Your task to perform on an android device: Search for Italian restaurants on Maps Image 0: 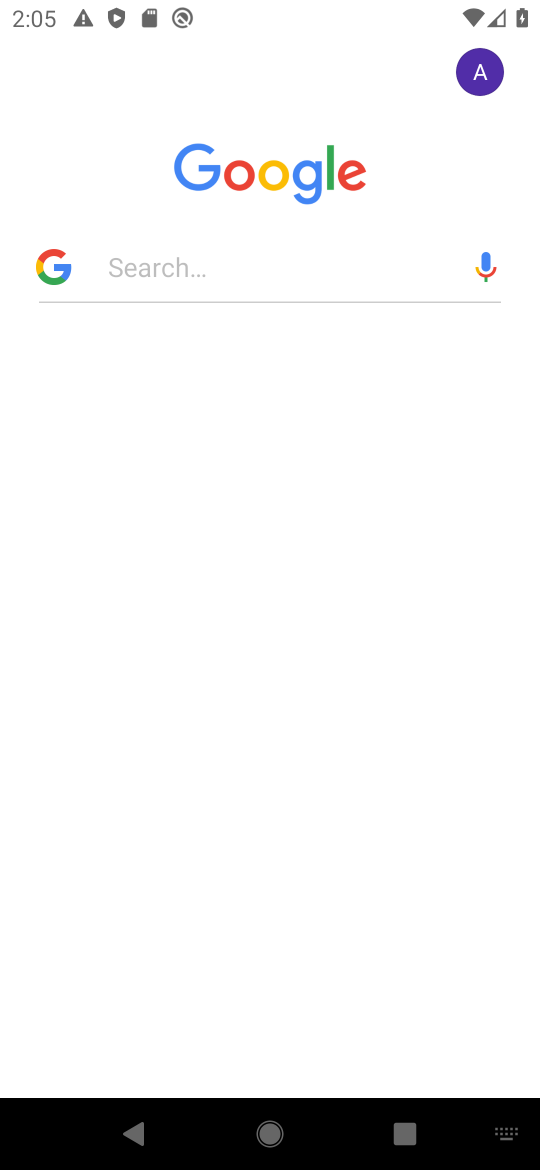
Step 0: press home button
Your task to perform on an android device: Search for Italian restaurants on Maps Image 1: 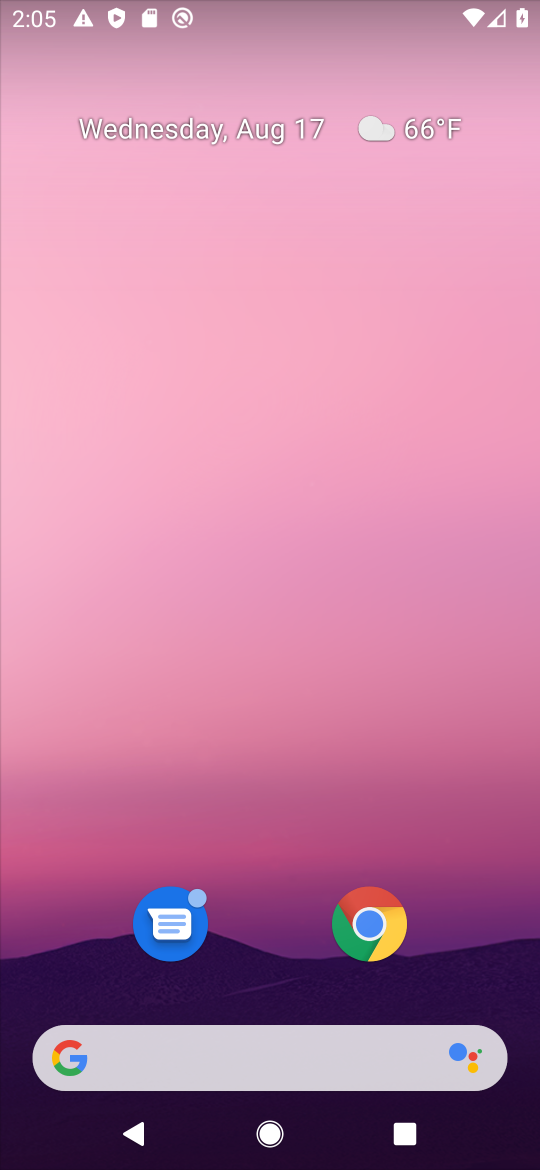
Step 1: drag from (212, 1039) to (343, 209)
Your task to perform on an android device: Search for Italian restaurants on Maps Image 2: 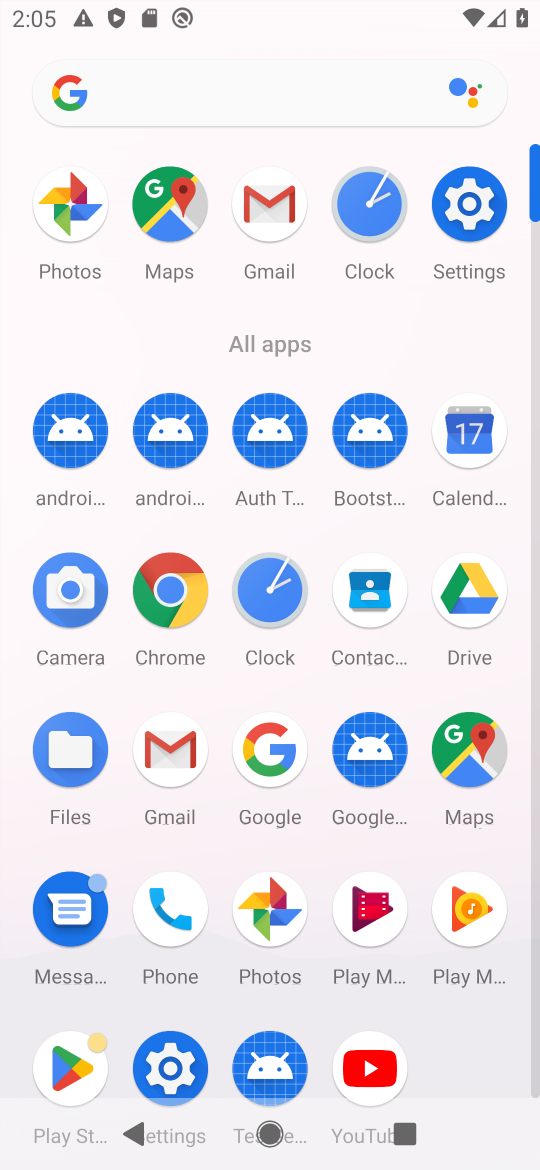
Step 2: click (171, 210)
Your task to perform on an android device: Search for Italian restaurants on Maps Image 3: 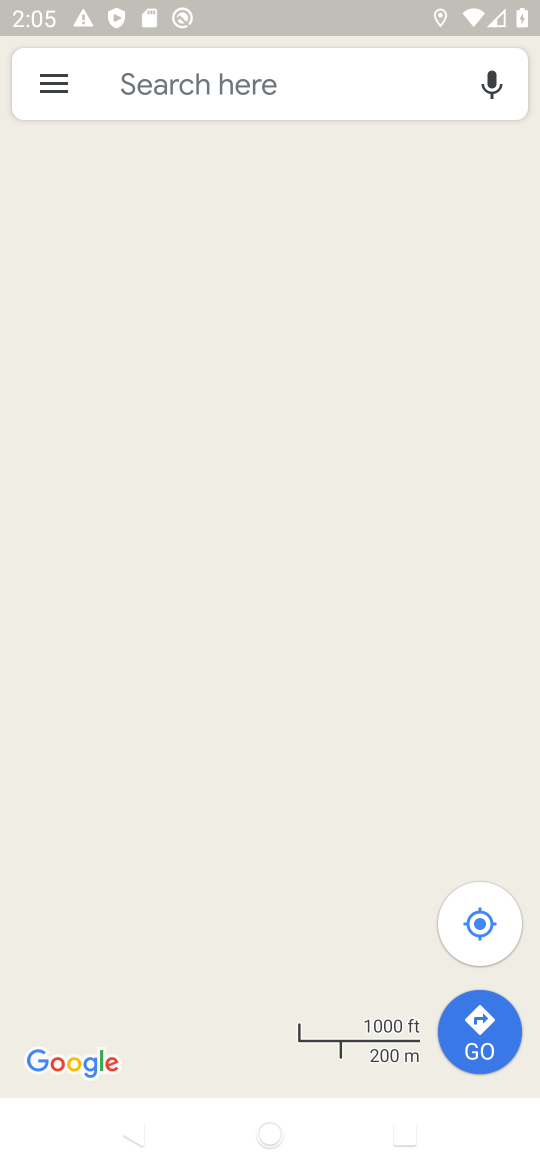
Step 3: click (250, 77)
Your task to perform on an android device: Search for Italian restaurants on Maps Image 4: 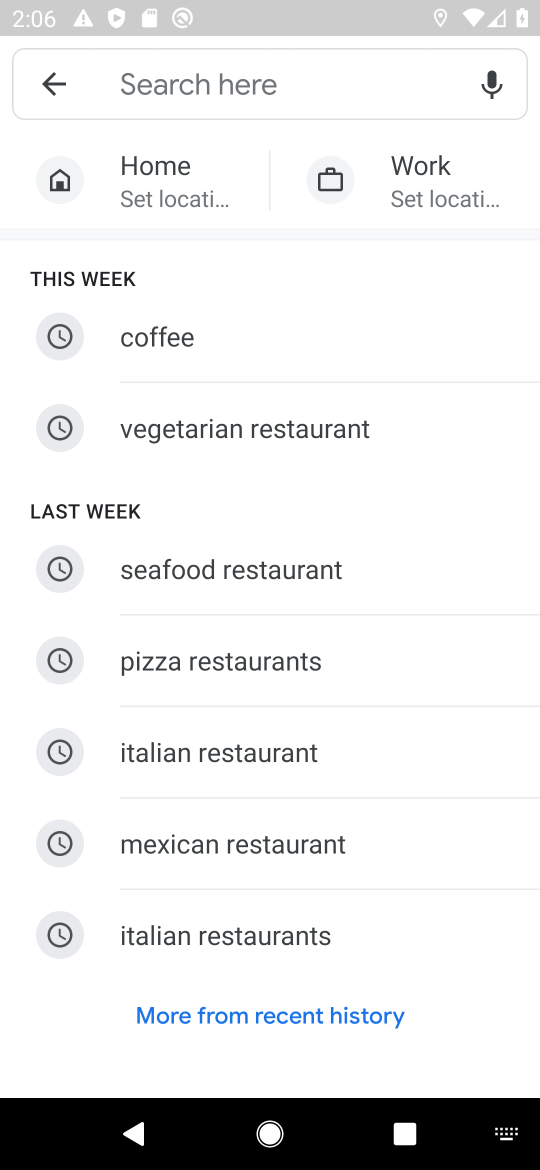
Step 4: type "Italian restaurants"
Your task to perform on an android device: Search for Italian restaurants on Maps Image 5: 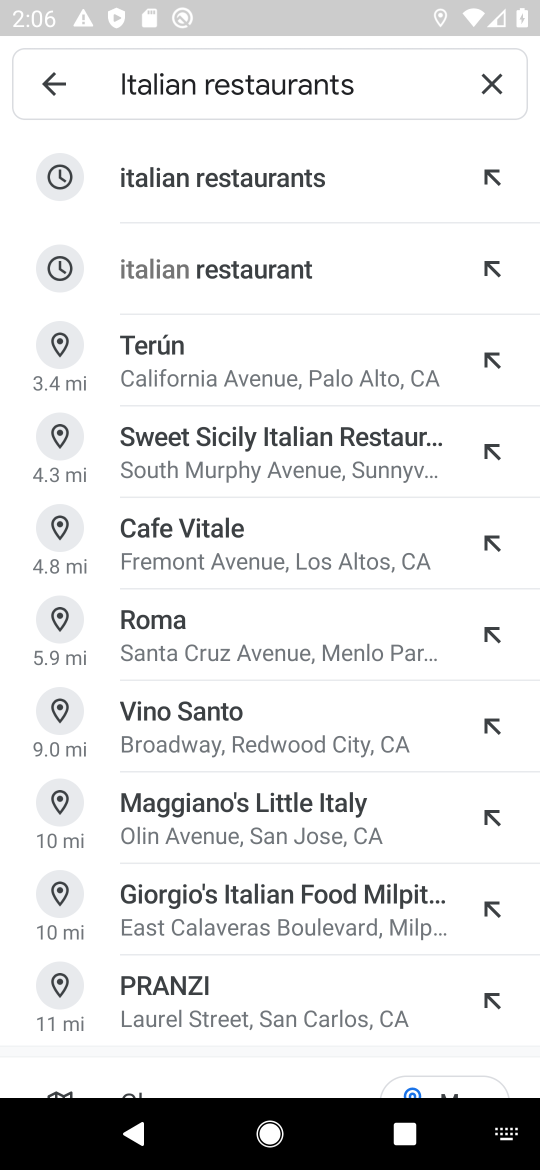
Step 5: click (294, 176)
Your task to perform on an android device: Search for Italian restaurants on Maps Image 6: 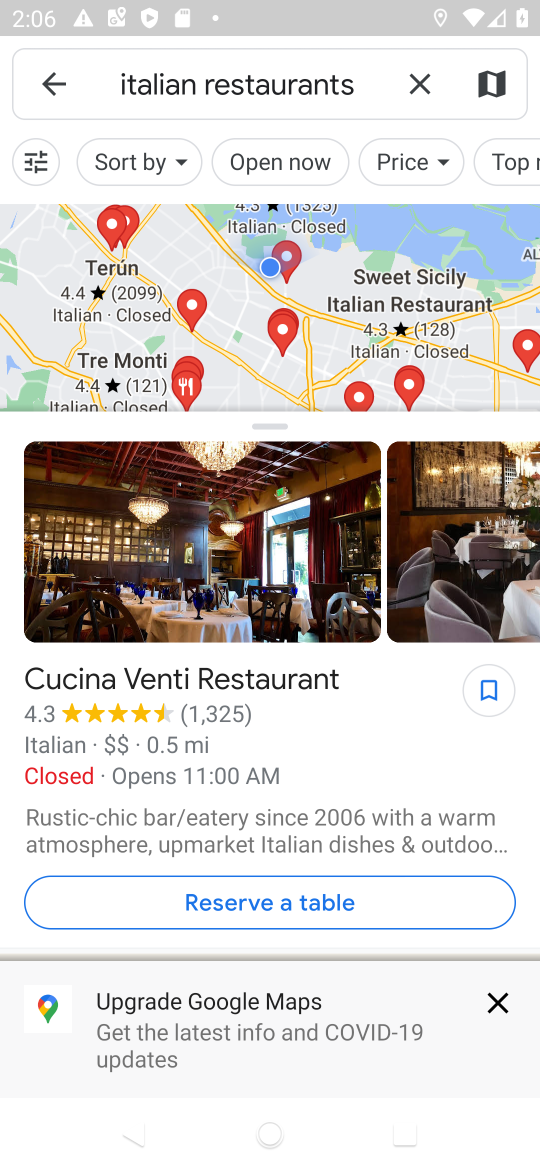
Step 6: task complete